Your task to perform on an android device: Open Google Chrome and click the shortcut for Amazon.com Image 0: 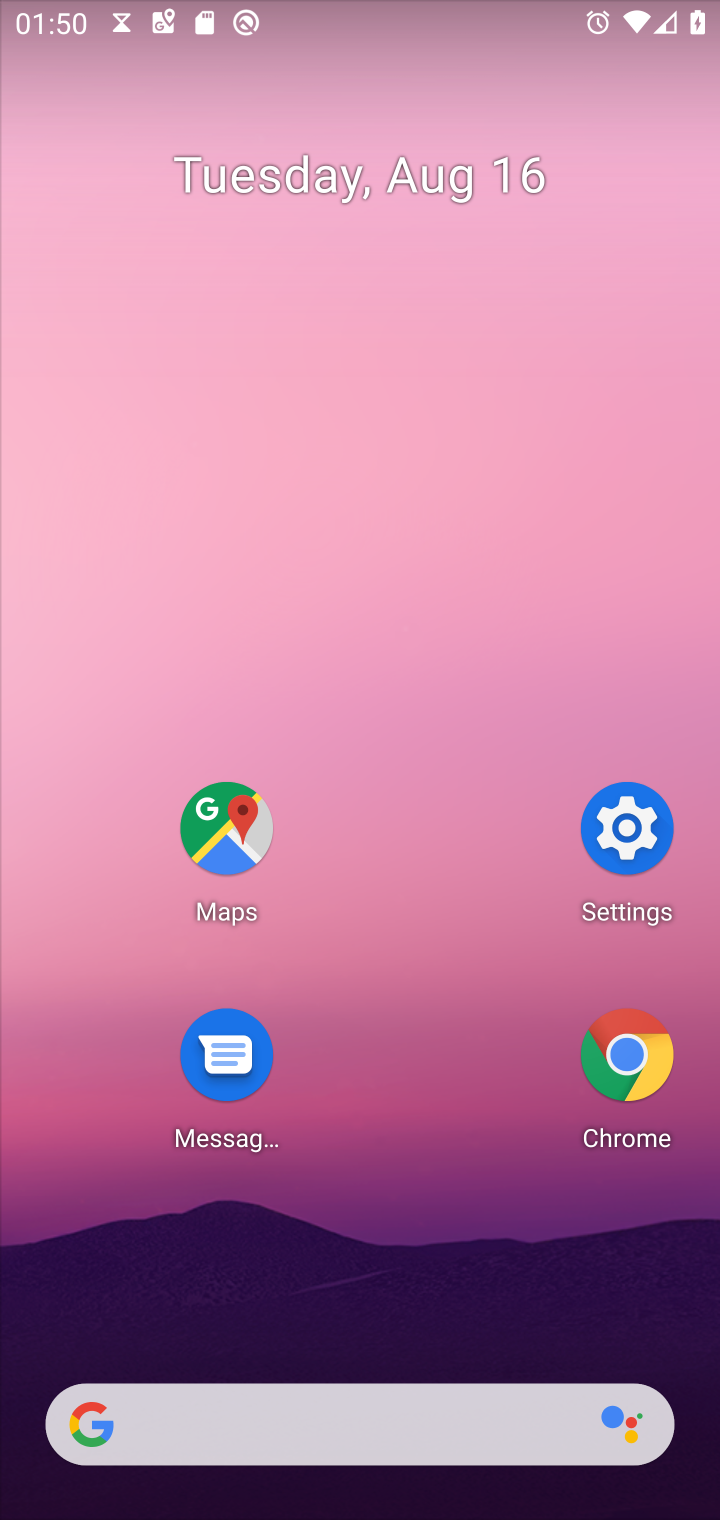
Step 0: press home button
Your task to perform on an android device: Open Google Chrome and click the shortcut for Amazon.com Image 1: 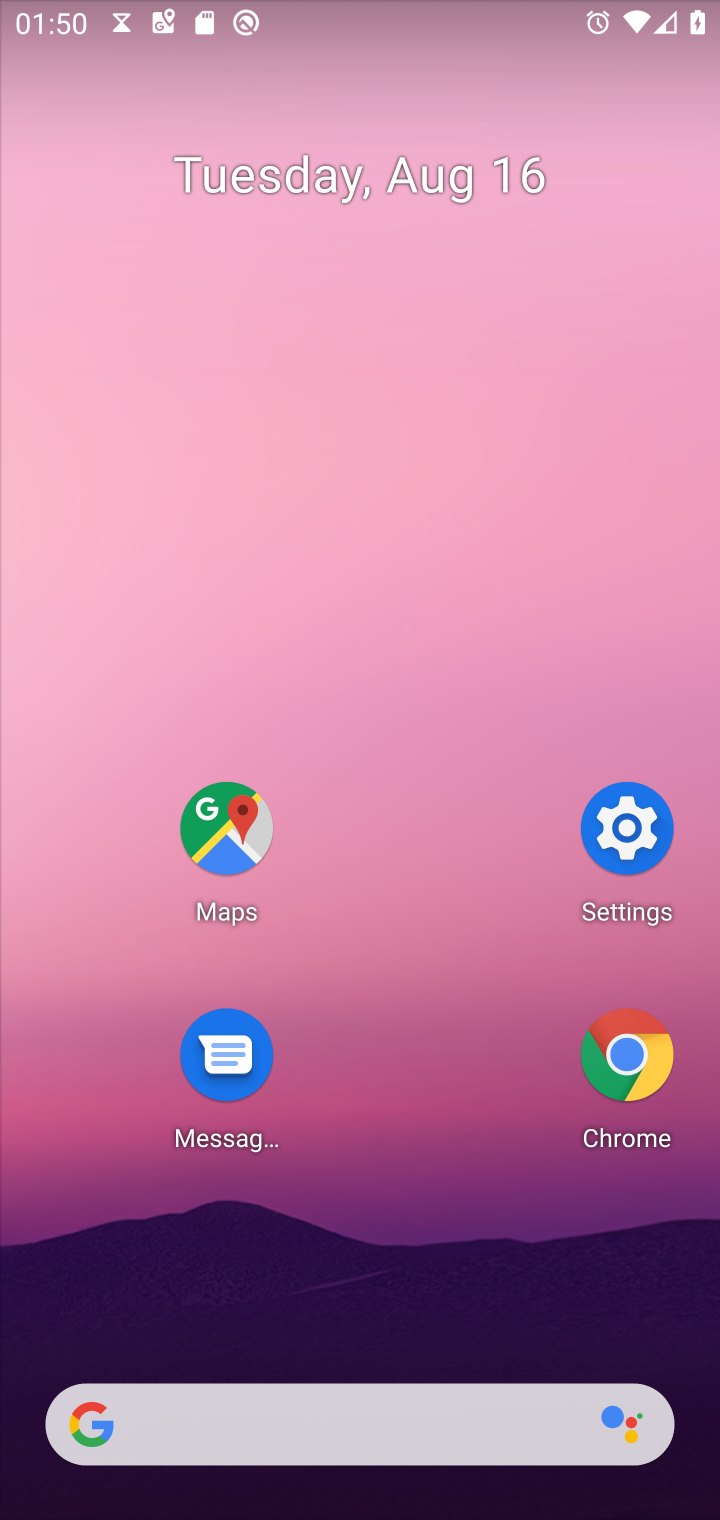
Step 1: press home button
Your task to perform on an android device: Open Google Chrome and click the shortcut for Amazon.com Image 2: 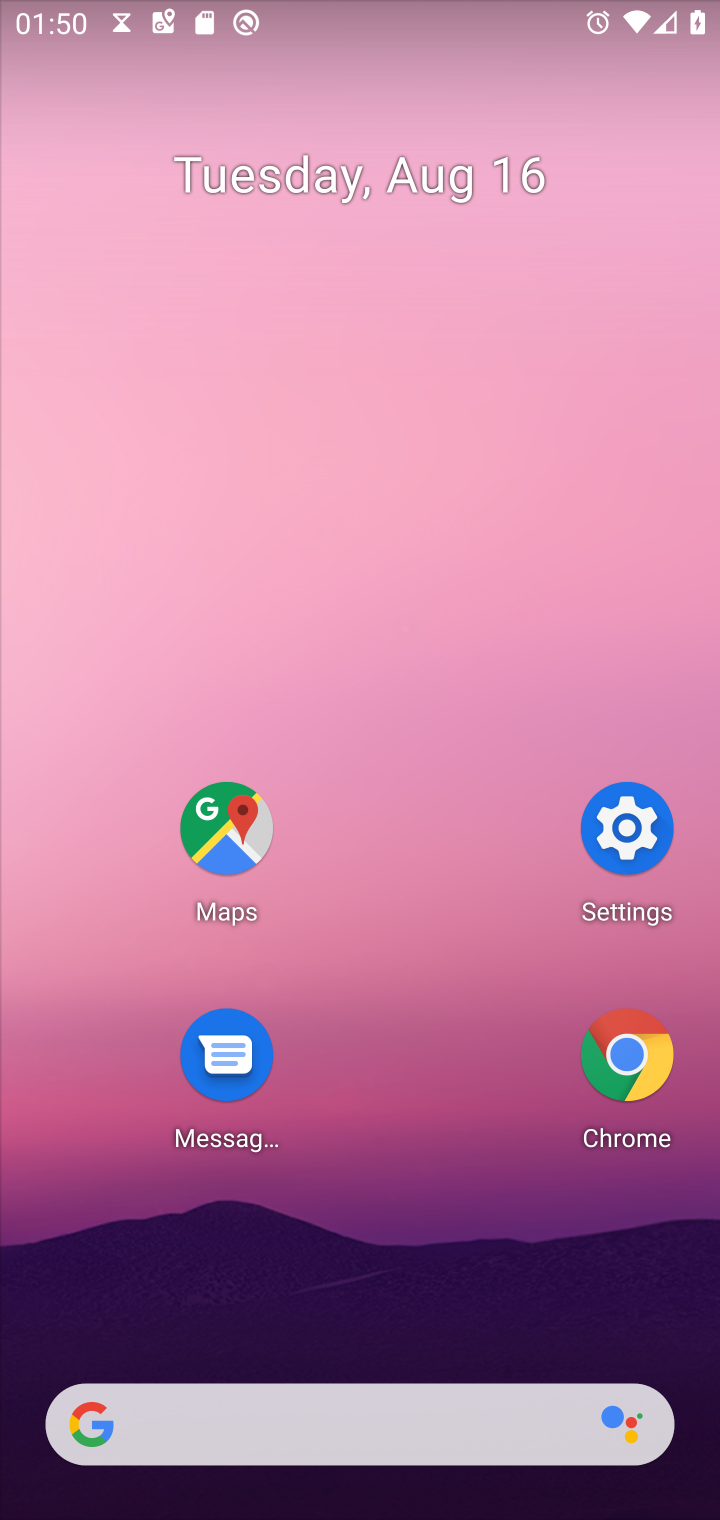
Step 2: click (648, 1057)
Your task to perform on an android device: Open Google Chrome and click the shortcut for Amazon.com Image 3: 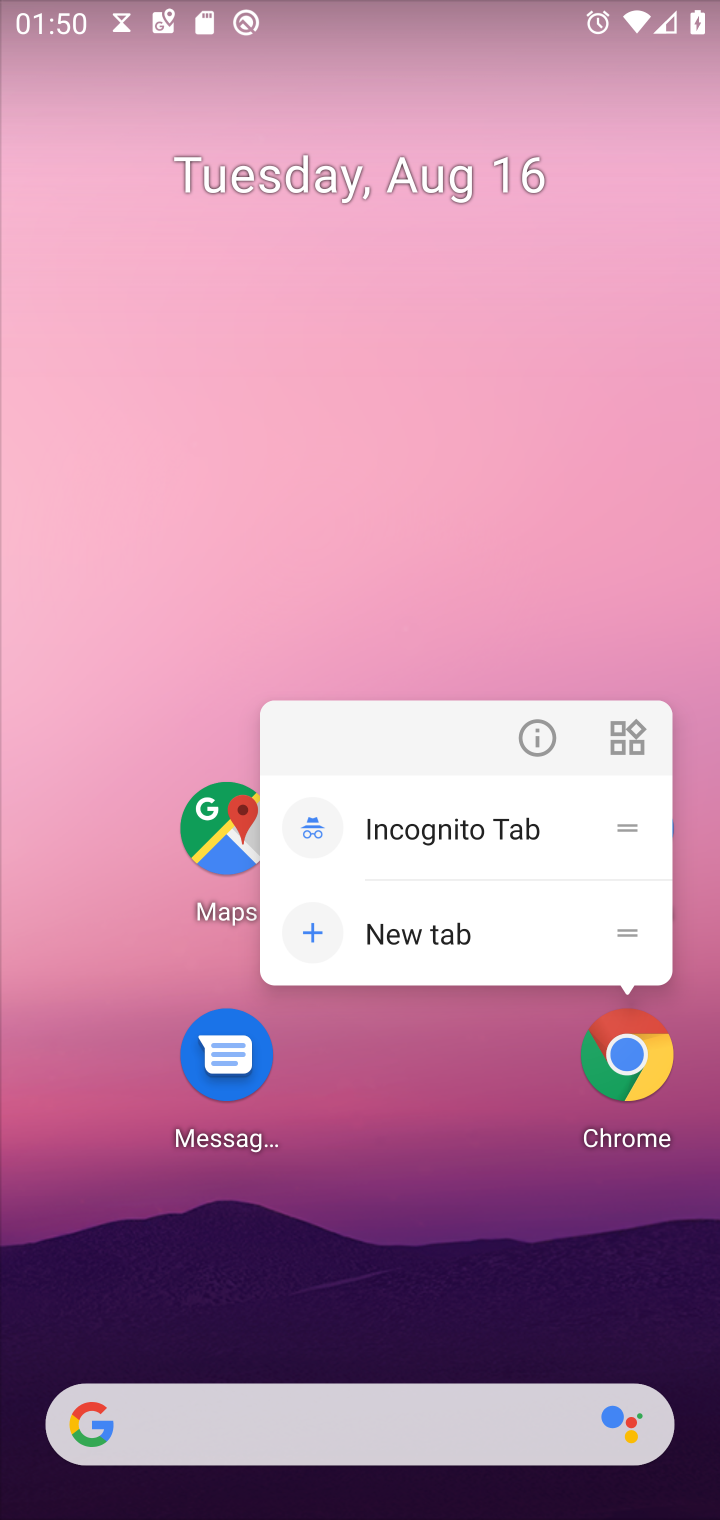
Step 3: click (624, 1049)
Your task to perform on an android device: Open Google Chrome and click the shortcut for Amazon.com Image 4: 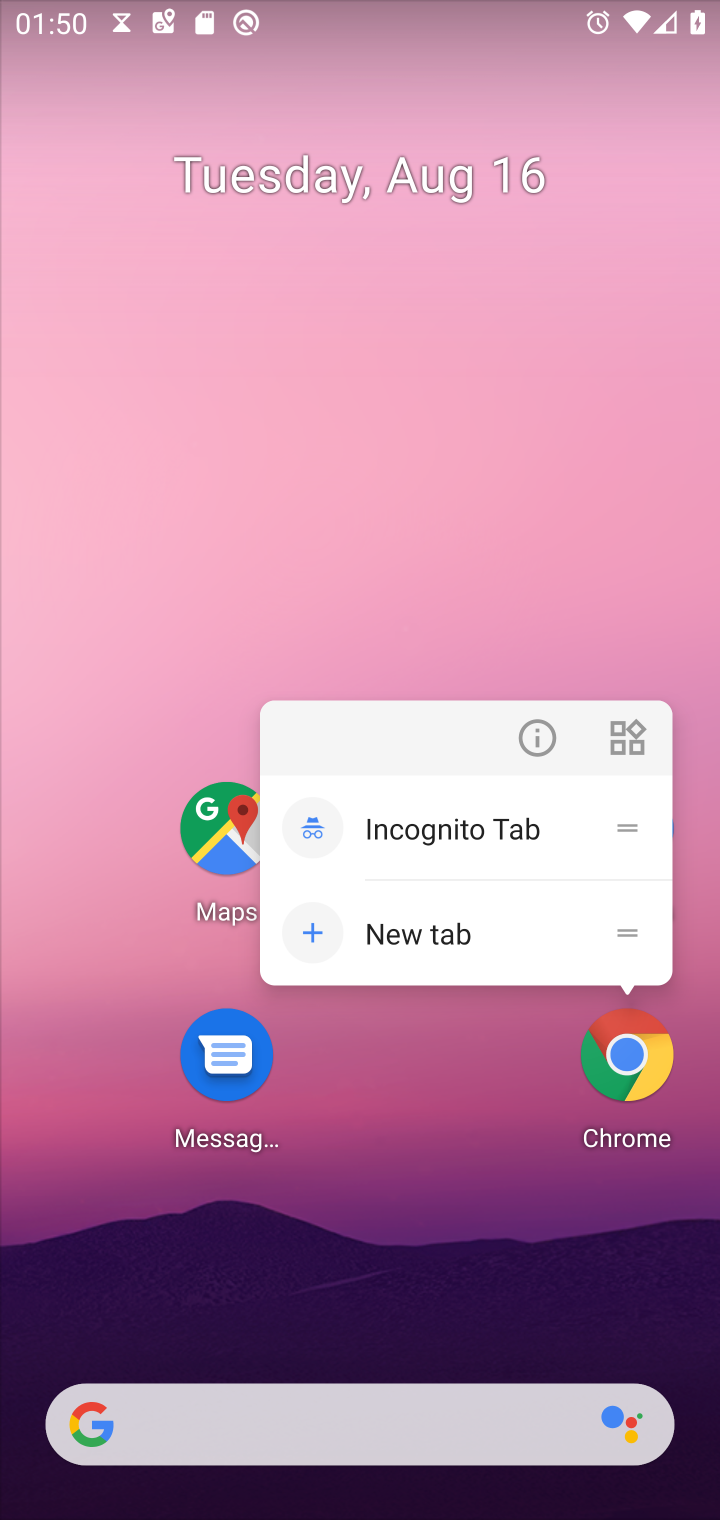
Step 4: click (624, 1049)
Your task to perform on an android device: Open Google Chrome and click the shortcut for Amazon.com Image 5: 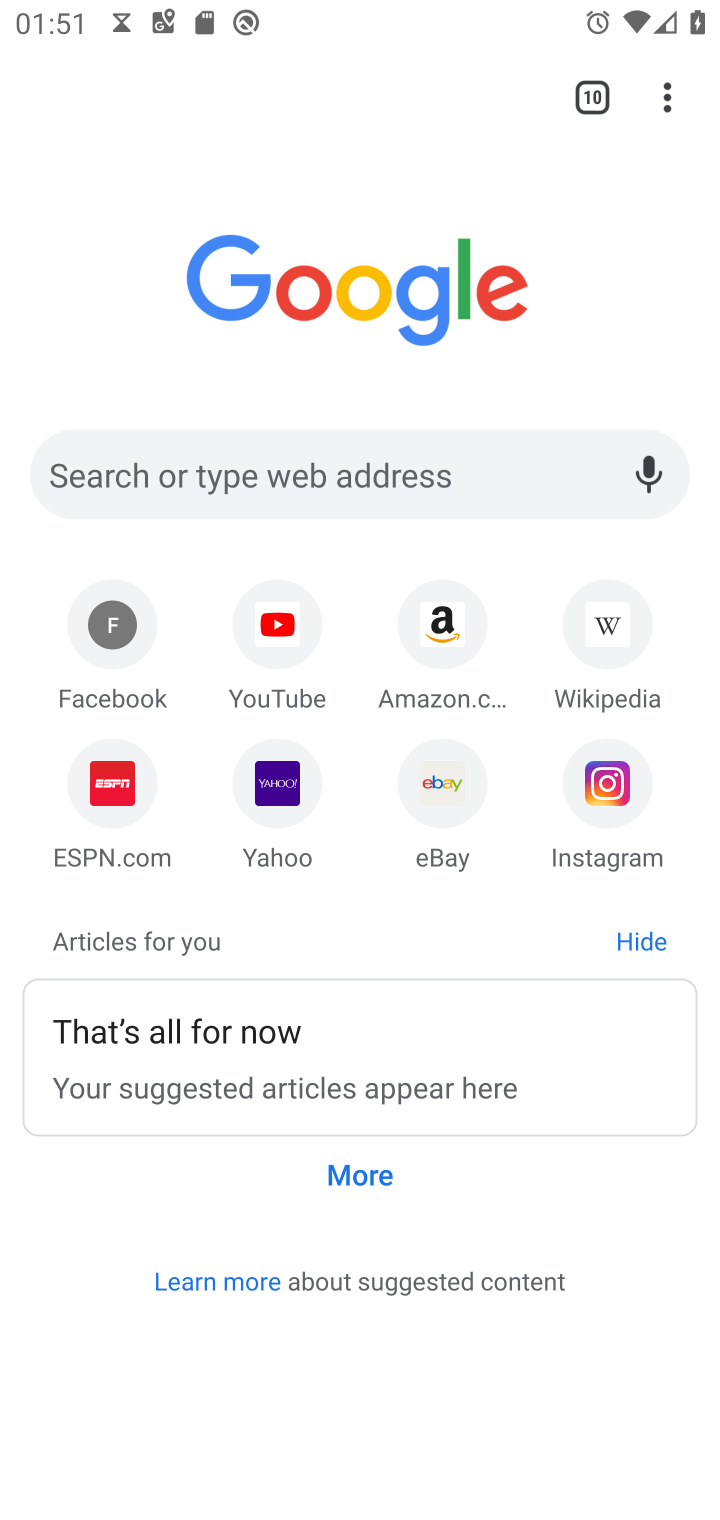
Step 5: click (428, 616)
Your task to perform on an android device: Open Google Chrome and click the shortcut for Amazon.com Image 6: 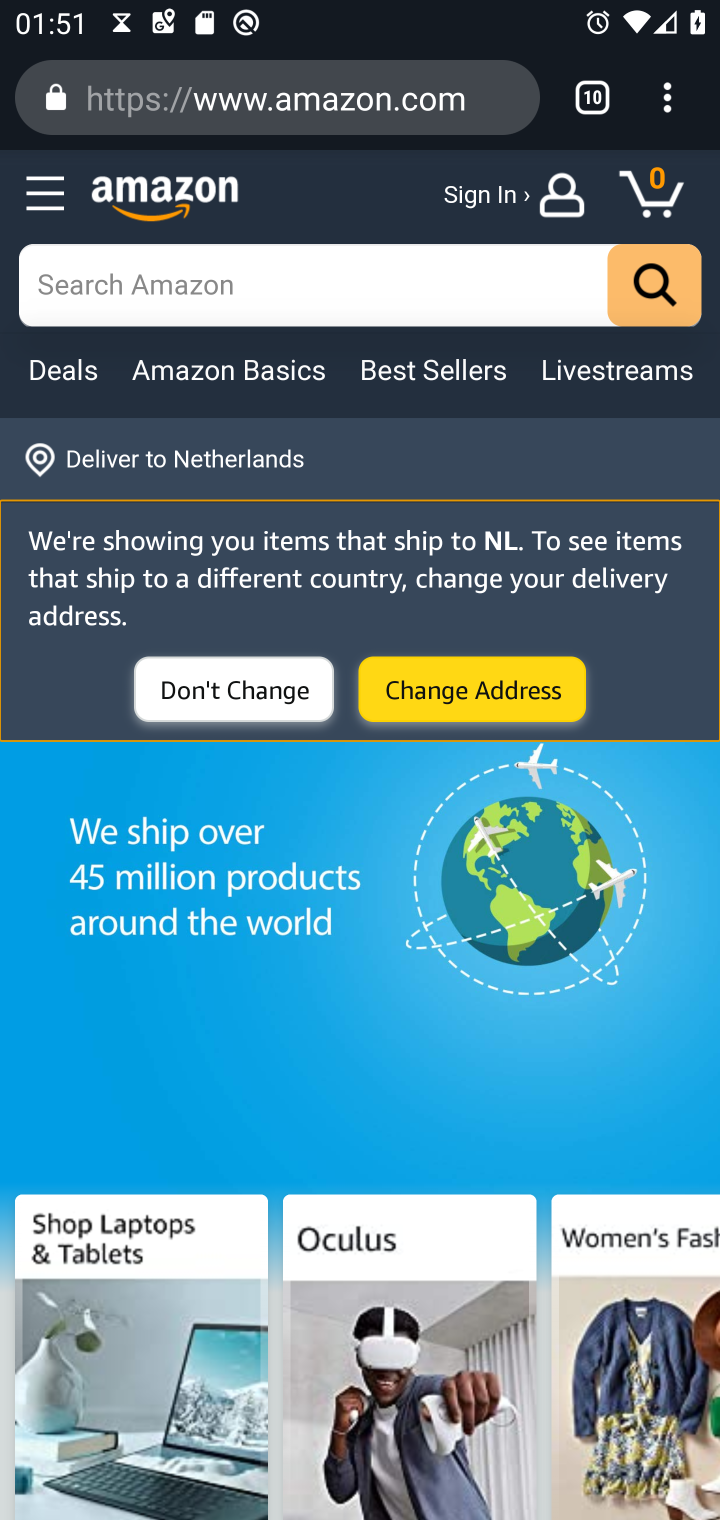
Step 6: task complete